Your task to perform on an android device: see tabs open on other devices in the chrome app Image 0: 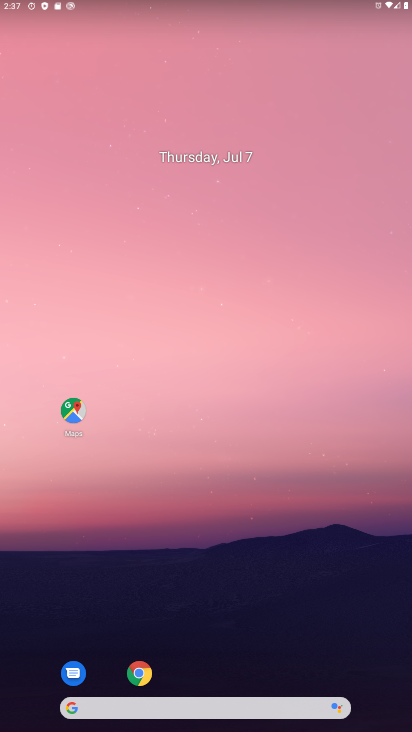
Step 0: drag from (225, 694) to (173, 99)
Your task to perform on an android device: see tabs open on other devices in the chrome app Image 1: 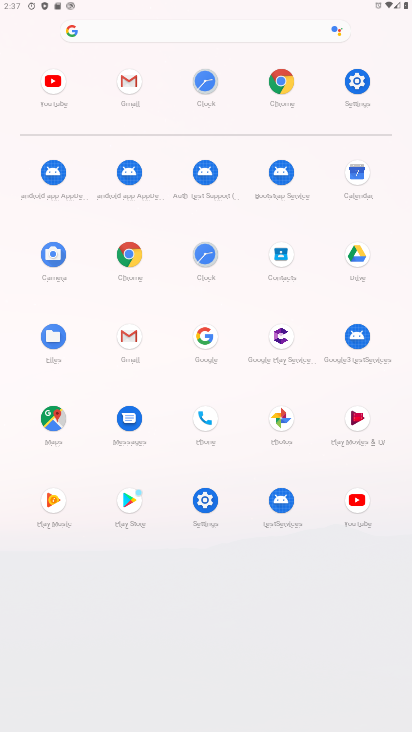
Step 1: click (134, 260)
Your task to perform on an android device: see tabs open on other devices in the chrome app Image 2: 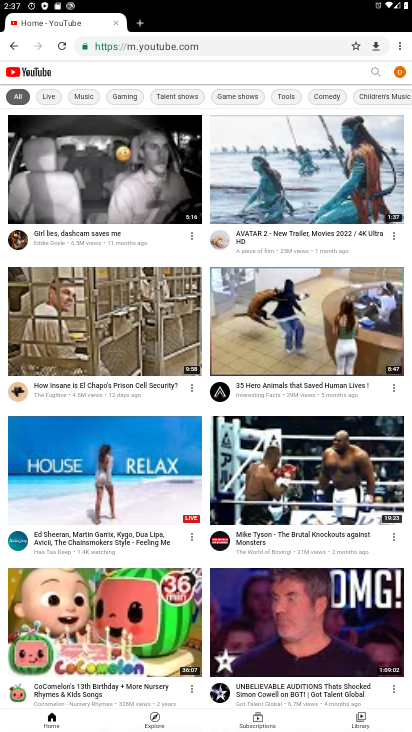
Step 2: click (402, 44)
Your task to perform on an android device: see tabs open on other devices in the chrome app Image 3: 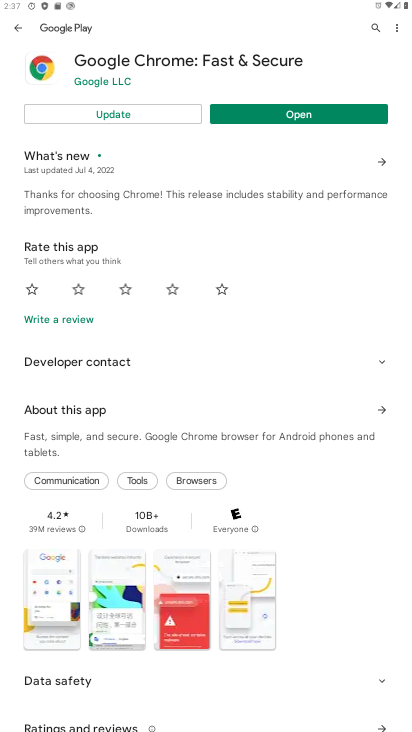
Step 3: press back button
Your task to perform on an android device: see tabs open on other devices in the chrome app Image 4: 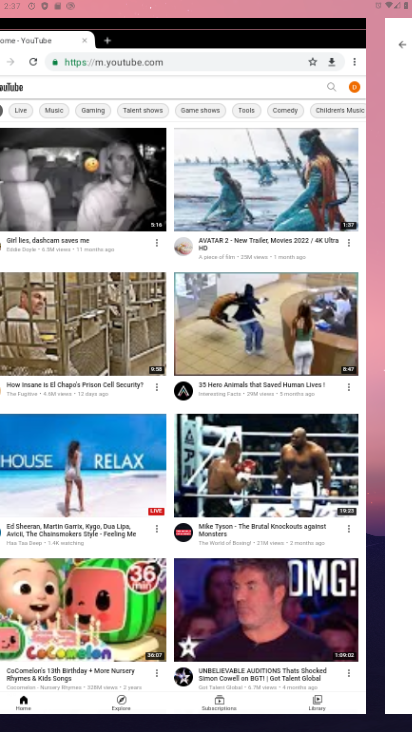
Step 4: press back button
Your task to perform on an android device: see tabs open on other devices in the chrome app Image 5: 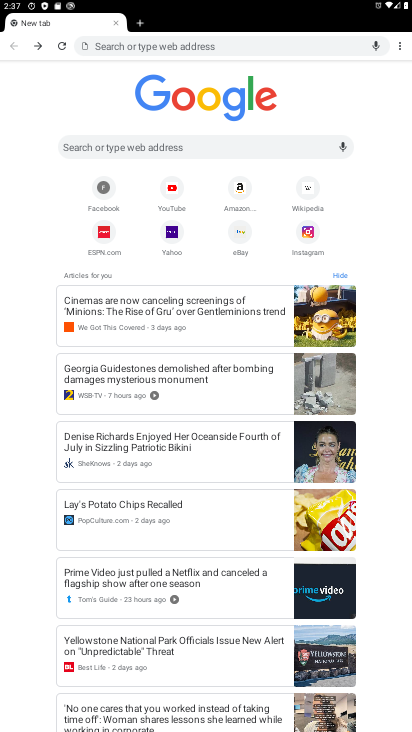
Step 5: click (401, 51)
Your task to perform on an android device: see tabs open on other devices in the chrome app Image 6: 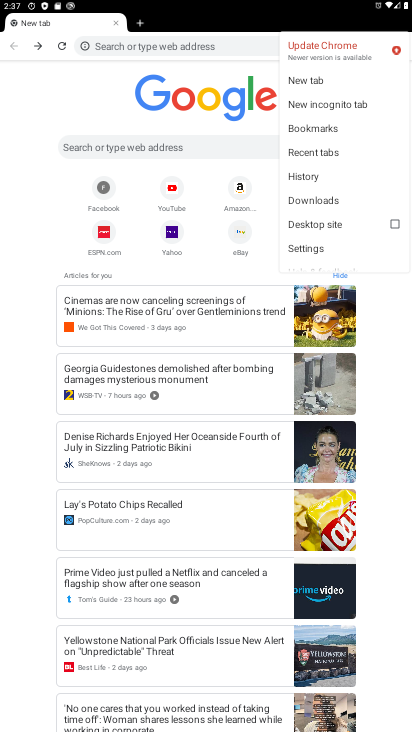
Step 6: click (307, 171)
Your task to perform on an android device: see tabs open on other devices in the chrome app Image 7: 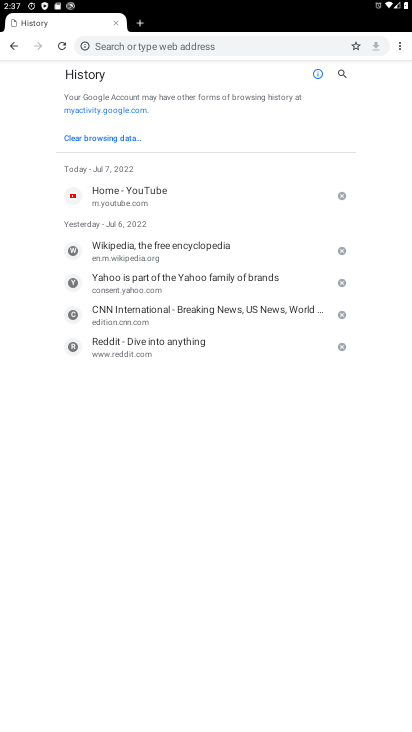
Step 7: task complete